Your task to perform on an android device: Open location settings Image 0: 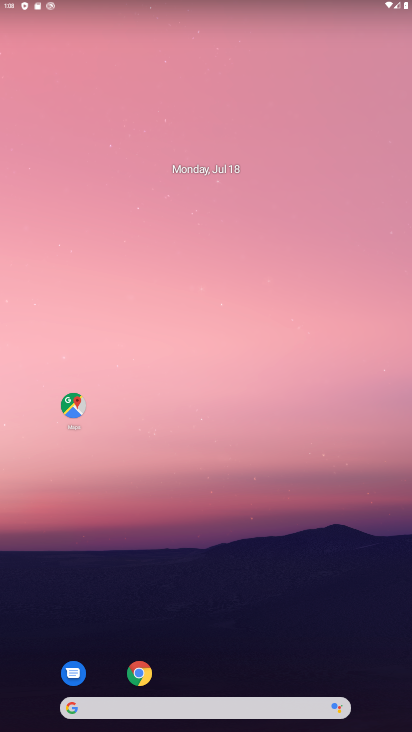
Step 0: drag from (383, 726) to (334, 189)
Your task to perform on an android device: Open location settings Image 1: 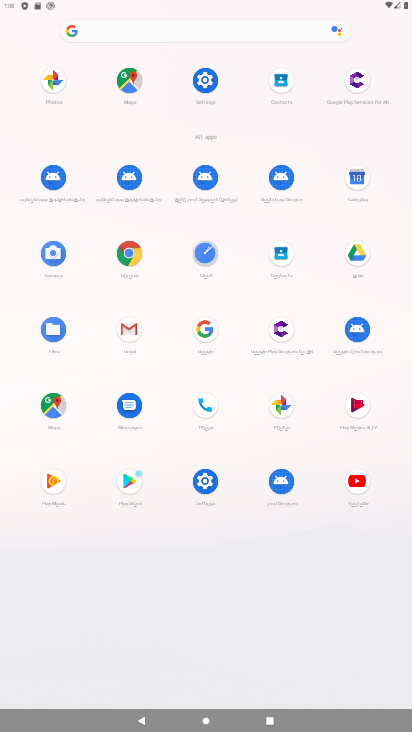
Step 1: click (210, 81)
Your task to perform on an android device: Open location settings Image 2: 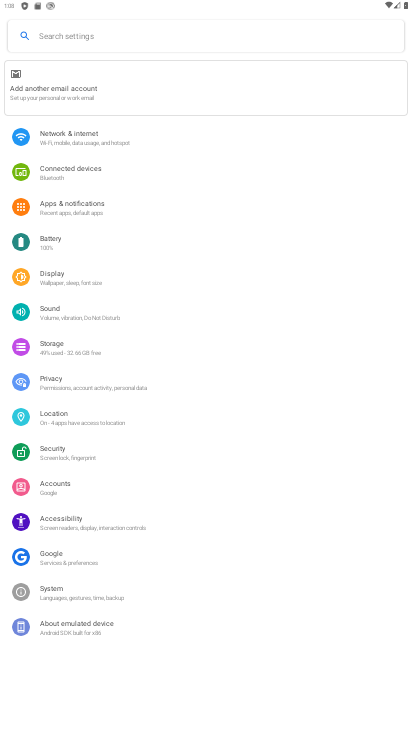
Step 2: click (48, 417)
Your task to perform on an android device: Open location settings Image 3: 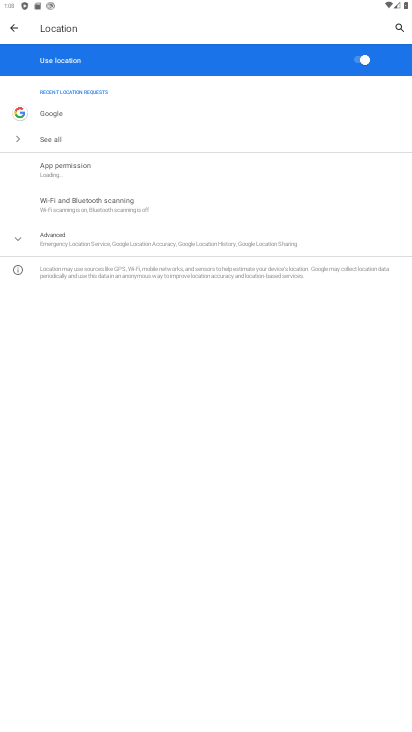
Step 3: click (10, 237)
Your task to perform on an android device: Open location settings Image 4: 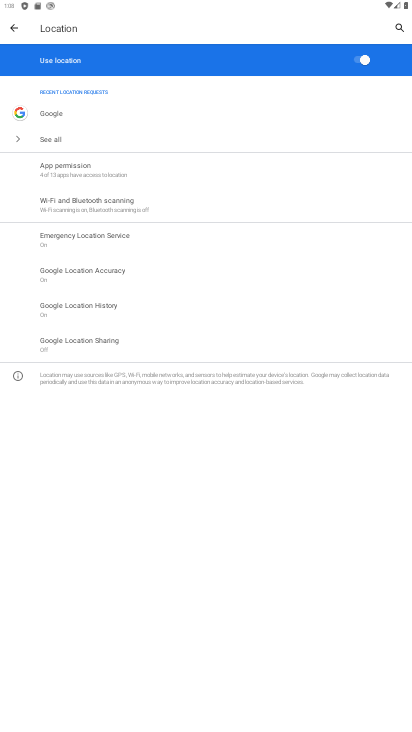
Step 4: task complete